Your task to perform on an android device: Go to location settings Image 0: 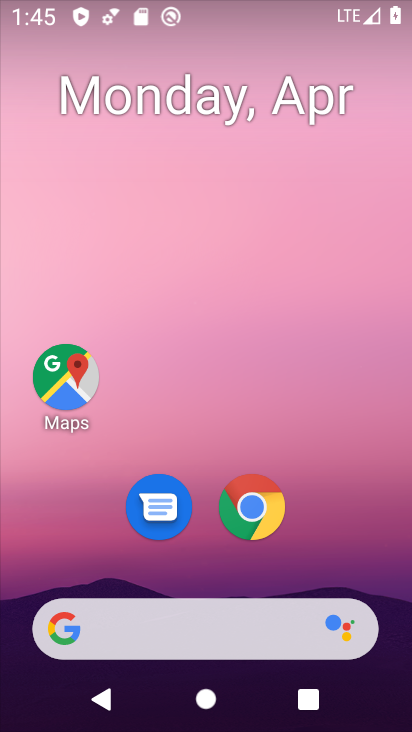
Step 0: drag from (403, 638) to (326, 97)
Your task to perform on an android device: Go to location settings Image 1: 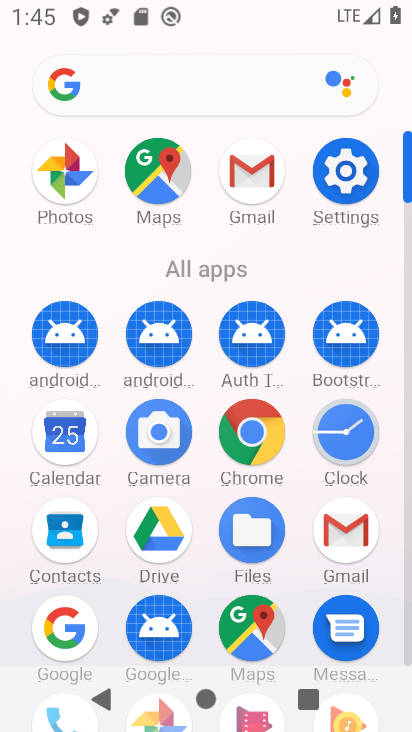
Step 1: click (408, 650)
Your task to perform on an android device: Go to location settings Image 2: 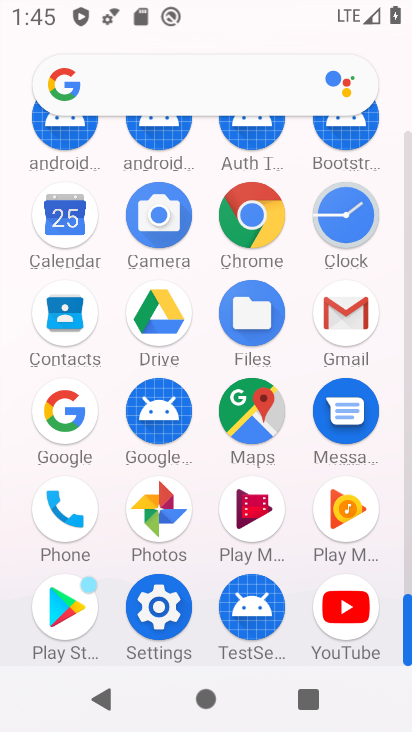
Step 2: click (156, 607)
Your task to perform on an android device: Go to location settings Image 3: 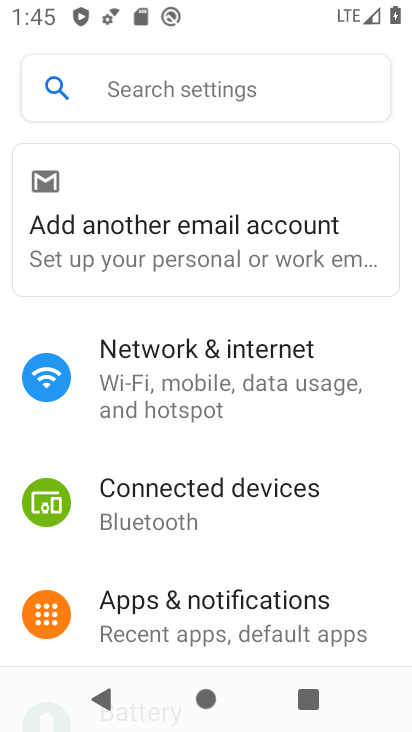
Step 3: drag from (349, 602) to (371, 224)
Your task to perform on an android device: Go to location settings Image 4: 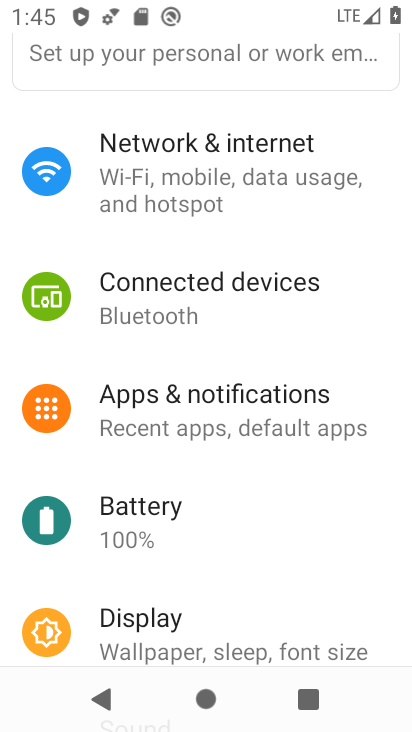
Step 4: drag from (348, 602) to (361, 244)
Your task to perform on an android device: Go to location settings Image 5: 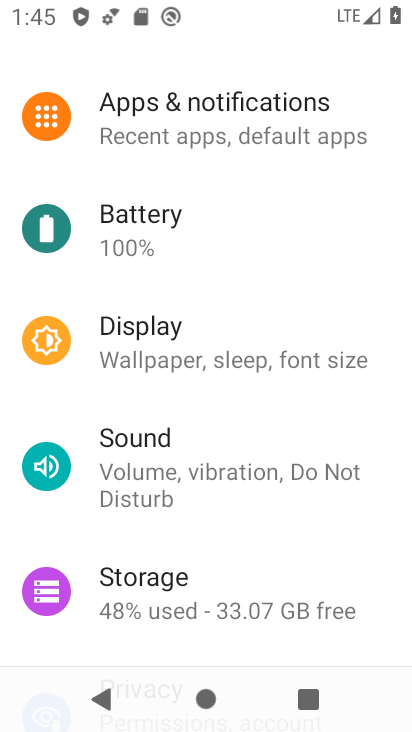
Step 5: drag from (343, 606) to (336, 150)
Your task to perform on an android device: Go to location settings Image 6: 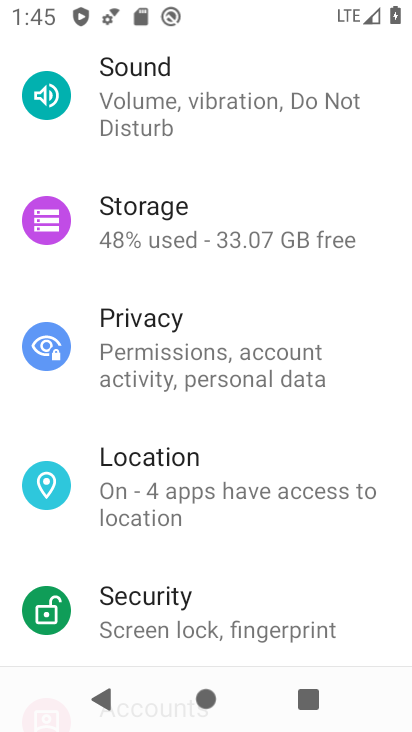
Step 6: click (144, 490)
Your task to perform on an android device: Go to location settings Image 7: 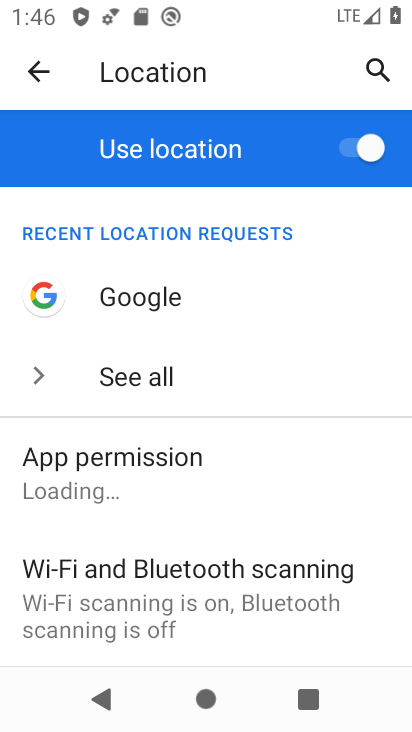
Step 7: drag from (355, 608) to (325, 331)
Your task to perform on an android device: Go to location settings Image 8: 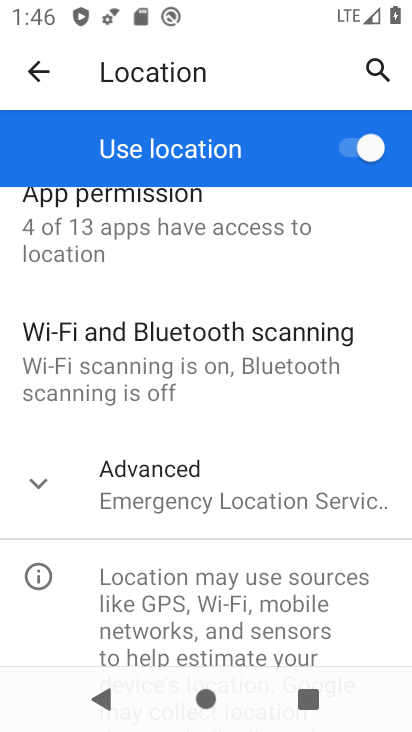
Step 8: click (38, 487)
Your task to perform on an android device: Go to location settings Image 9: 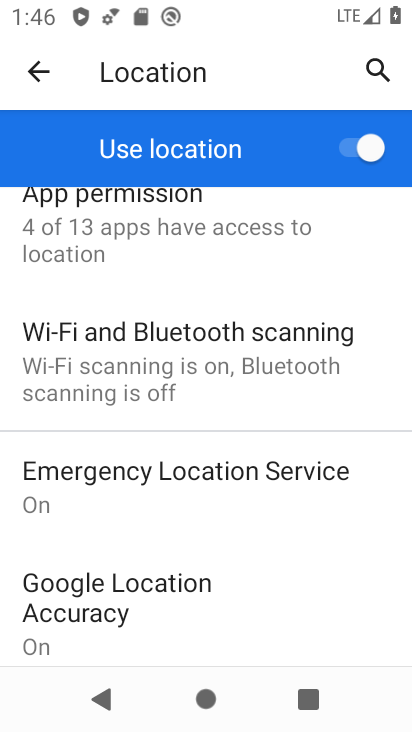
Step 9: task complete